Your task to perform on an android device: turn vacation reply on in the gmail app Image 0: 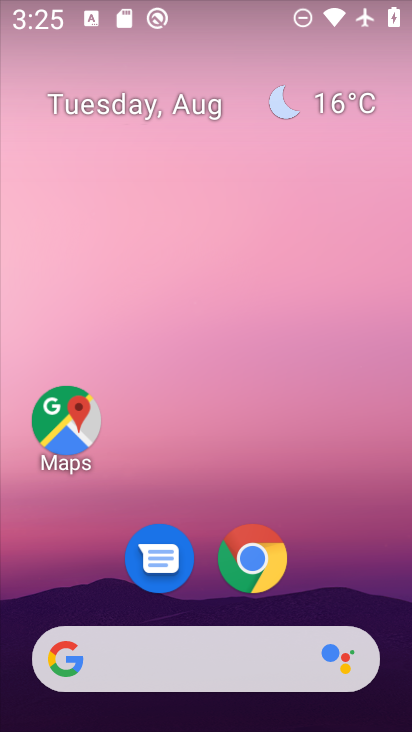
Step 0: drag from (211, 507) to (216, 129)
Your task to perform on an android device: turn vacation reply on in the gmail app Image 1: 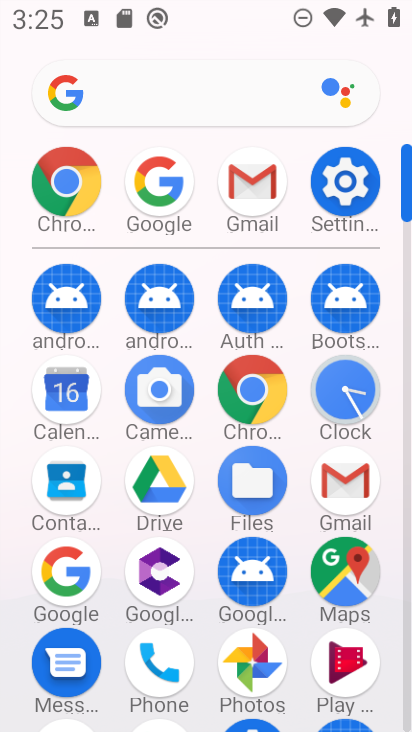
Step 1: click (252, 206)
Your task to perform on an android device: turn vacation reply on in the gmail app Image 2: 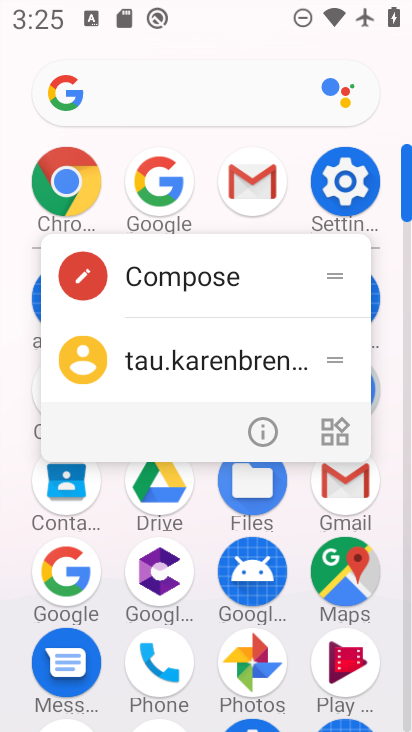
Step 2: click (252, 206)
Your task to perform on an android device: turn vacation reply on in the gmail app Image 3: 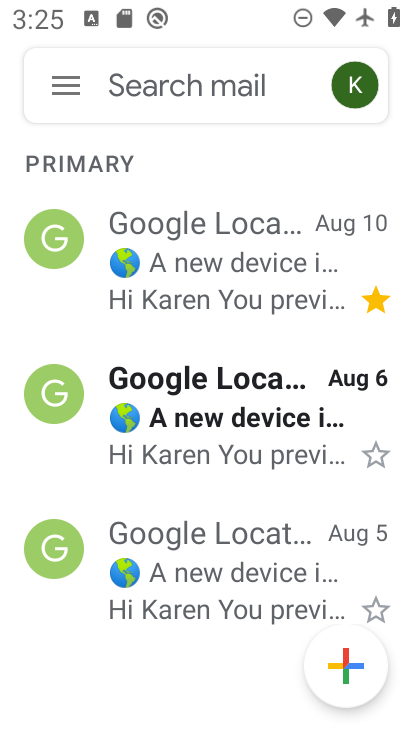
Step 3: click (73, 70)
Your task to perform on an android device: turn vacation reply on in the gmail app Image 4: 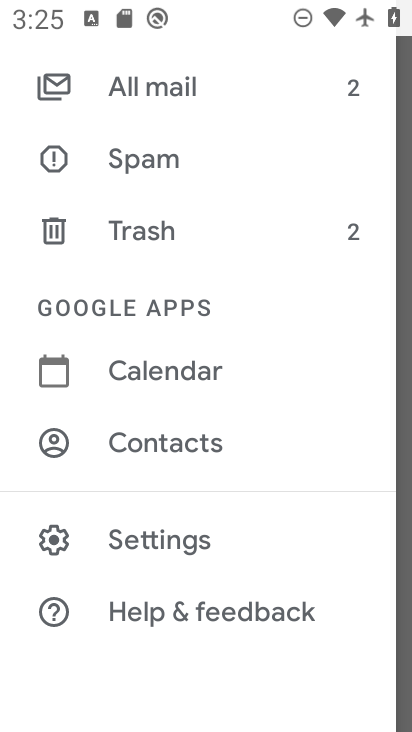
Step 4: click (162, 534)
Your task to perform on an android device: turn vacation reply on in the gmail app Image 5: 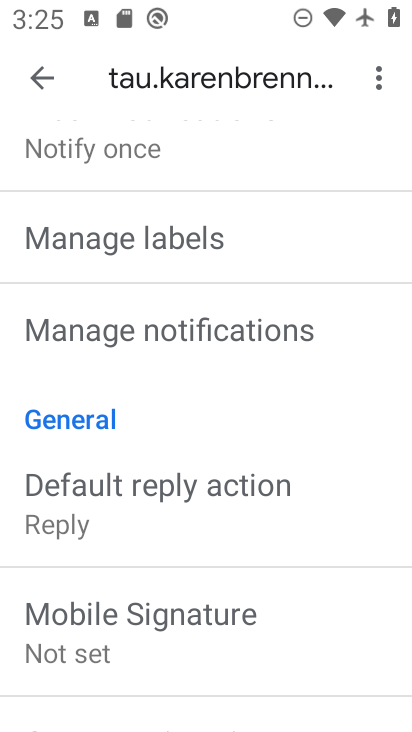
Step 5: drag from (188, 631) to (175, 310)
Your task to perform on an android device: turn vacation reply on in the gmail app Image 6: 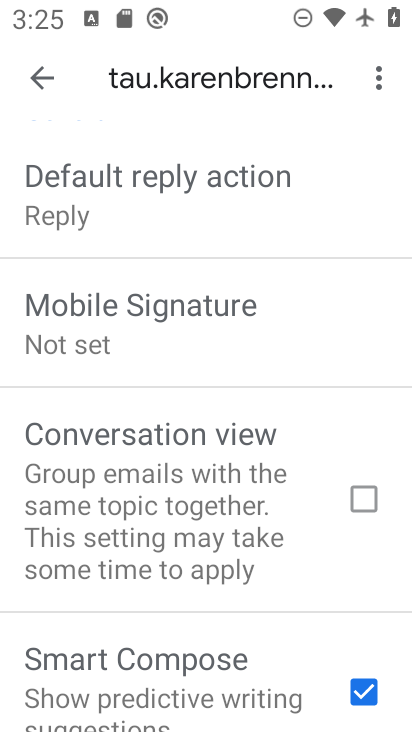
Step 6: drag from (181, 541) to (211, 233)
Your task to perform on an android device: turn vacation reply on in the gmail app Image 7: 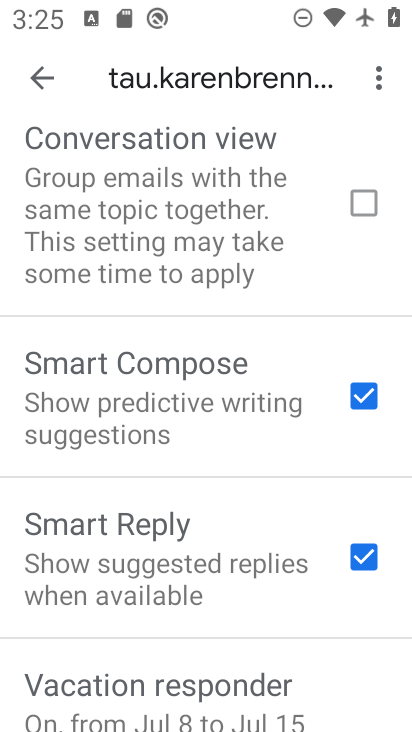
Step 7: drag from (240, 639) to (249, 348)
Your task to perform on an android device: turn vacation reply on in the gmail app Image 8: 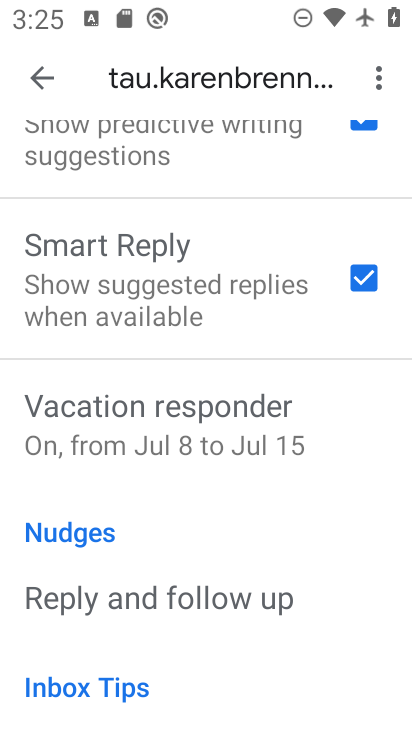
Step 8: click (159, 434)
Your task to perform on an android device: turn vacation reply on in the gmail app Image 9: 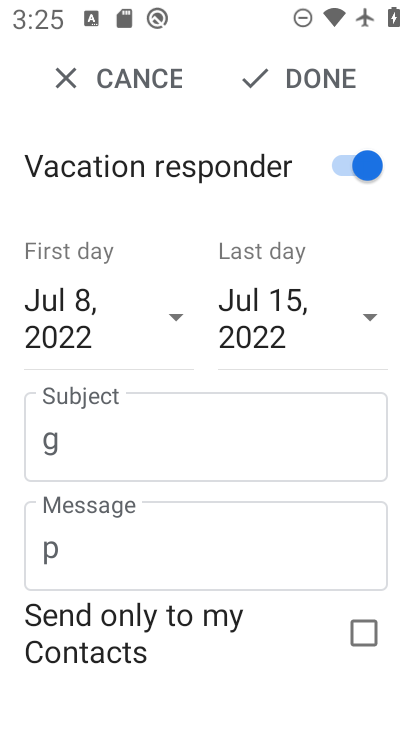
Step 9: task complete